Your task to perform on an android device: Open Google Chrome Image 0: 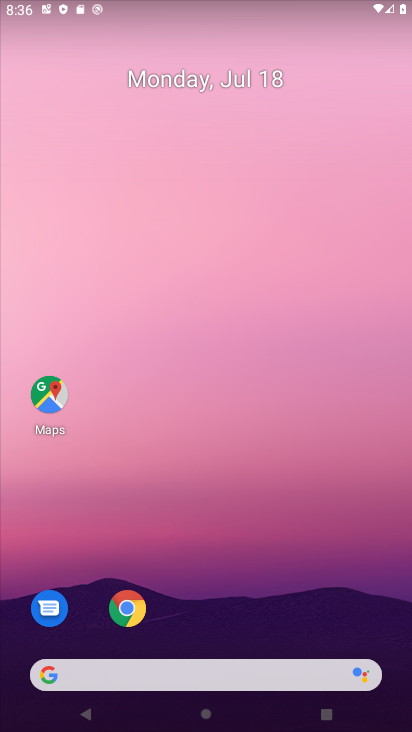
Step 0: click (125, 608)
Your task to perform on an android device: Open Google Chrome Image 1: 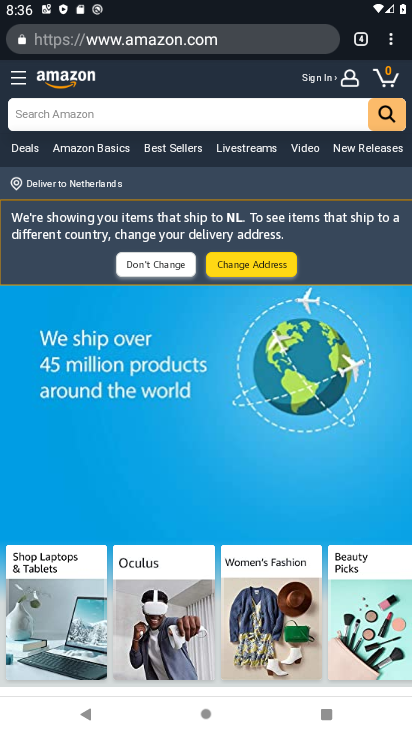
Step 1: task complete